Your task to perform on an android device: turn on bluetooth scan Image 0: 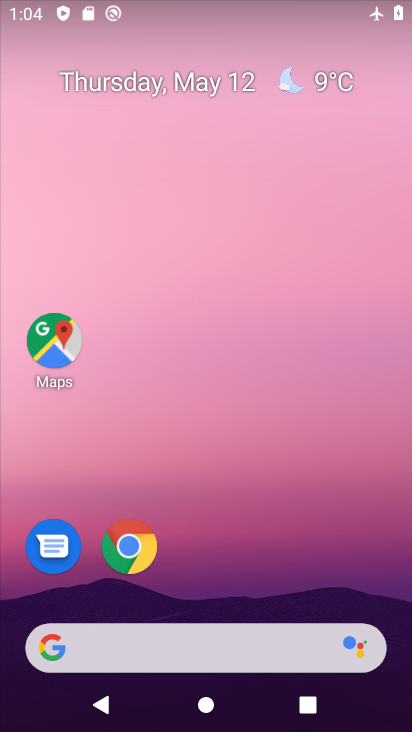
Step 0: drag from (250, 671) to (408, 147)
Your task to perform on an android device: turn on bluetooth scan Image 1: 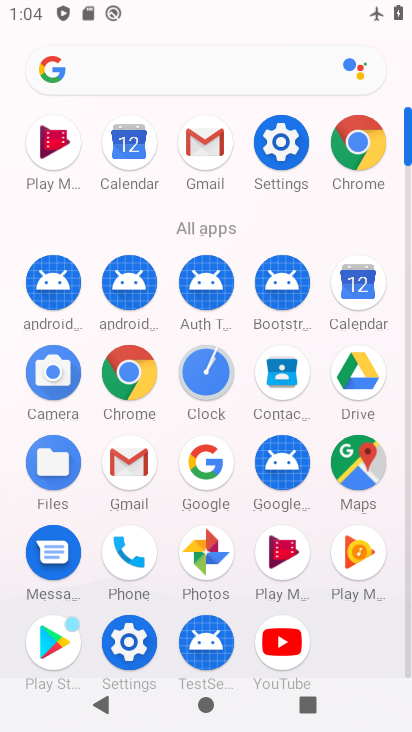
Step 1: click (279, 154)
Your task to perform on an android device: turn on bluetooth scan Image 2: 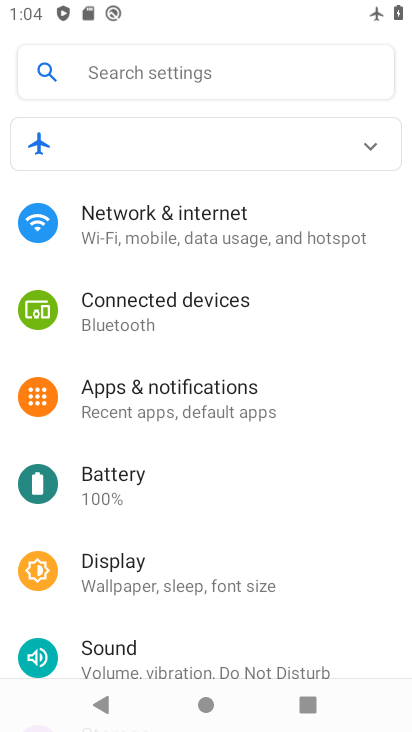
Step 2: click (157, 80)
Your task to perform on an android device: turn on bluetooth scan Image 3: 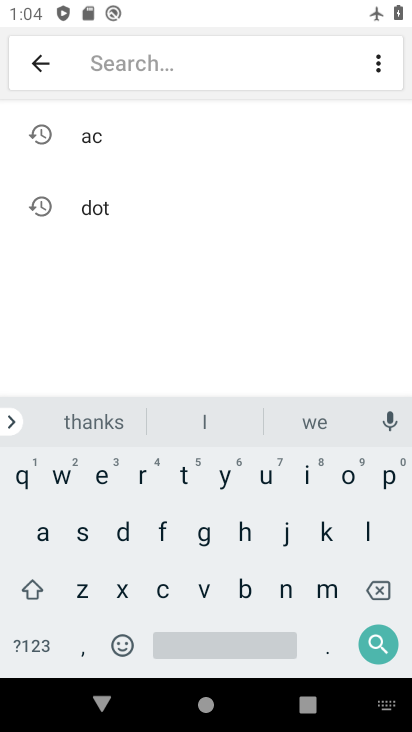
Step 3: click (361, 537)
Your task to perform on an android device: turn on bluetooth scan Image 4: 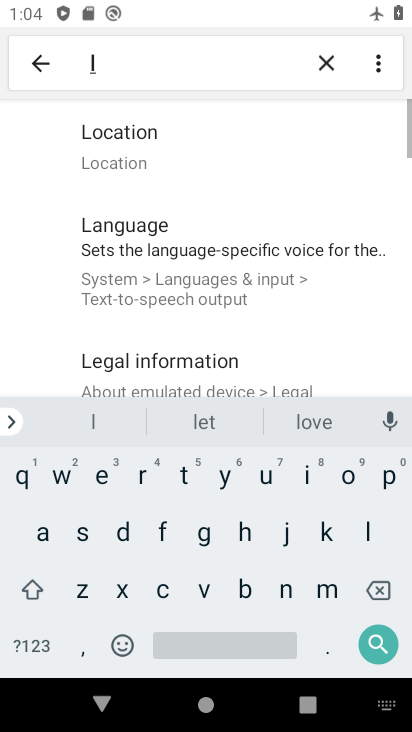
Step 4: click (348, 477)
Your task to perform on an android device: turn on bluetooth scan Image 5: 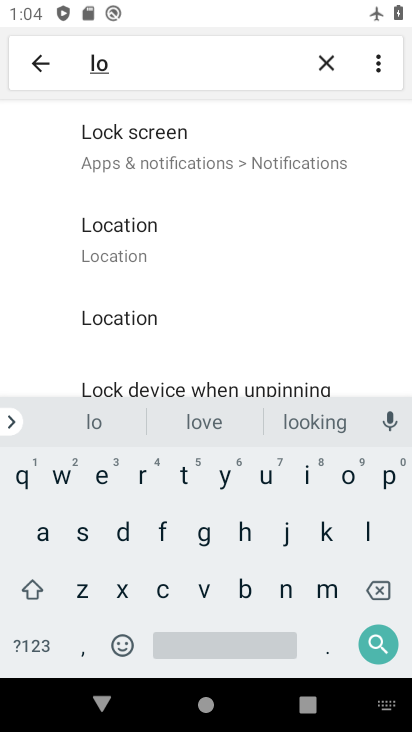
Step 5: click (162, 590)
Your task to perform on an android device: turn on bluetooth scan Image 6: 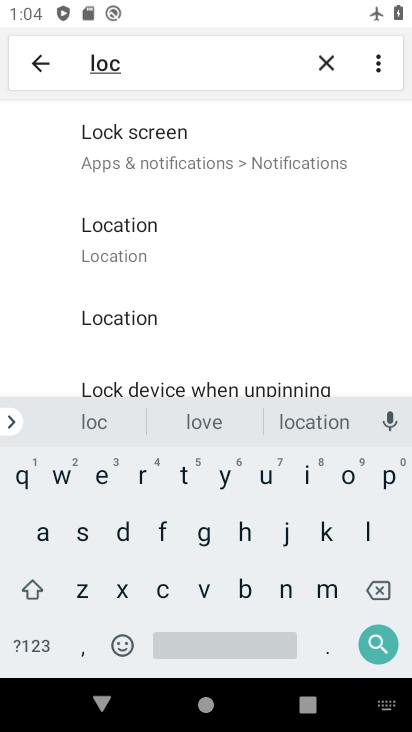
Step 6: click (148, 255)
Your task to perform on an android device: turn on bluetooth scan Image 7: 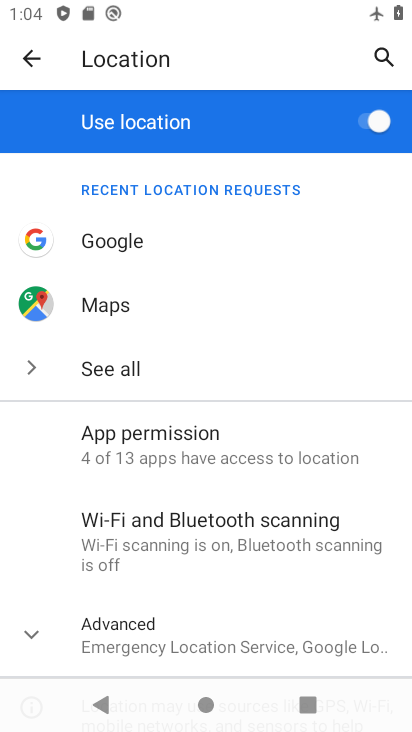
Step 7: click (135, 639)
Your task to perform on an android device: turn on bluetooth scan Image 8: 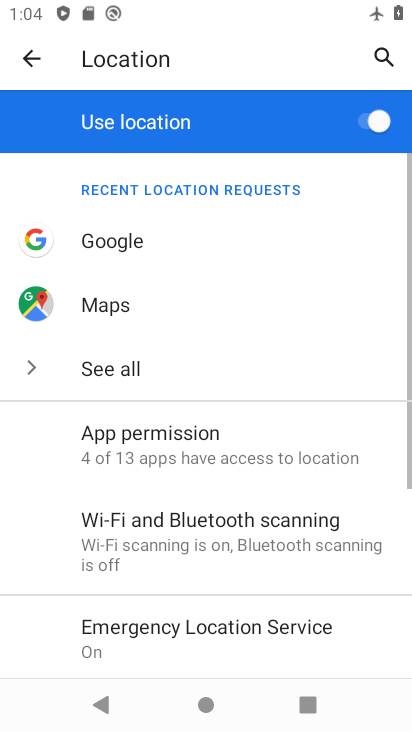
Step 8: drag from (120, 637) to (195, 422)
Your task to perform on an android device: turn on bluetooth scan Image 9: 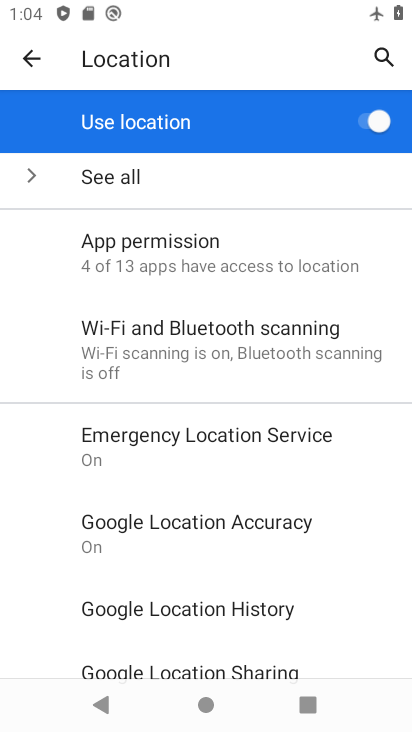
Step 9: drag from (217, 577) to (234, 545)
Your task to perform on an android device: turn on bluetooth scan Image 10: 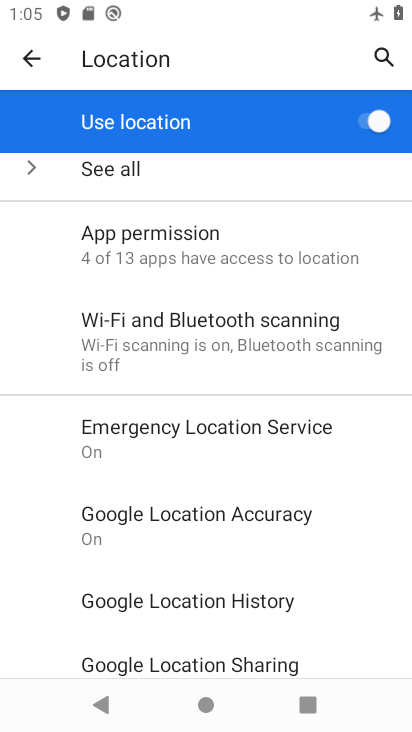
Step 10: click (276, 361)
Your task to perform on an android device: turn on bluetooth scan Image 11: 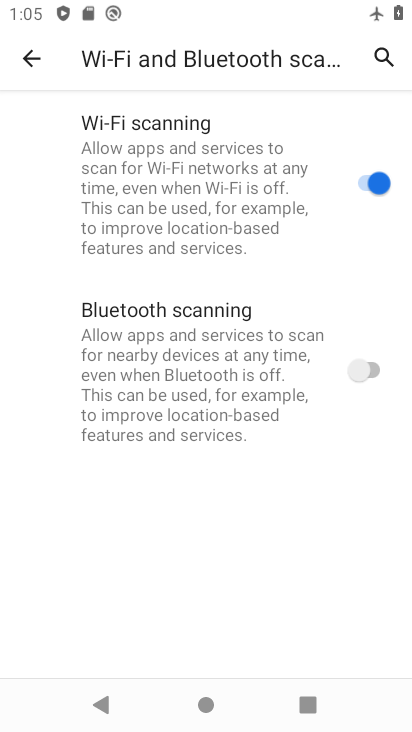
Step 11: click (329, 368)
Your task to perform on an android device: turn on bluetooth scan Image 12: 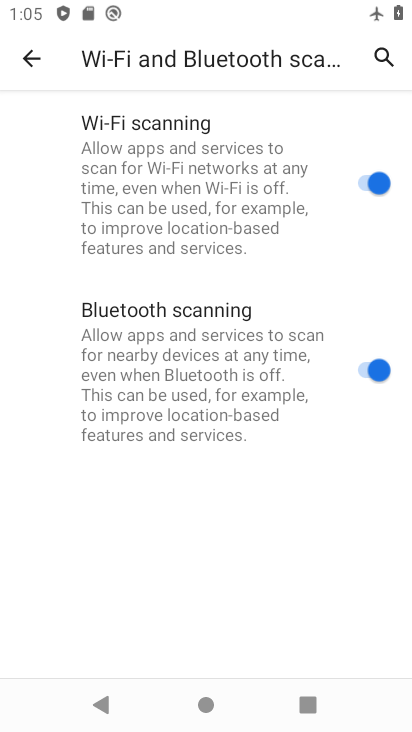
Step 12: task complete